Your task to perform on an android device: Go to Maps Image 0: 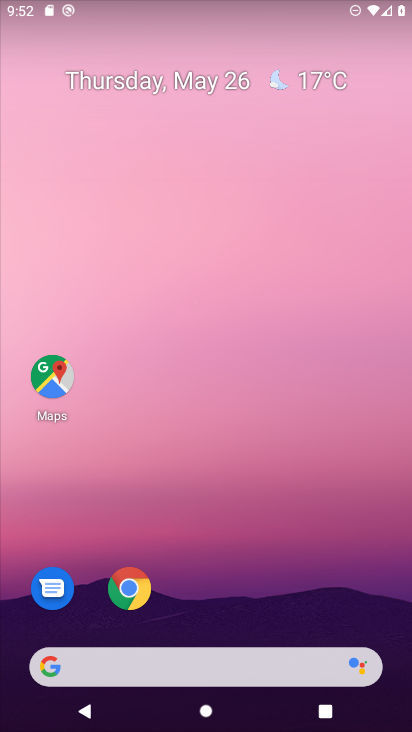
Step 0: click (49, 375)
Your task to perform on an android device: Go to Maps Image 1: 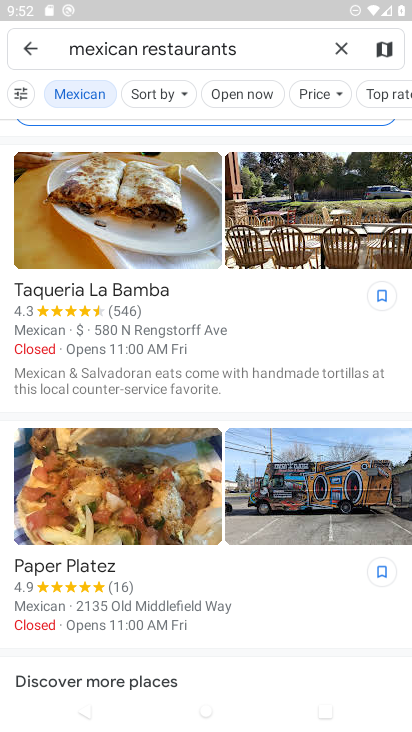
Step 1: click (338, 44)
Your task to perform on an android device: Go to Maps Image 2: 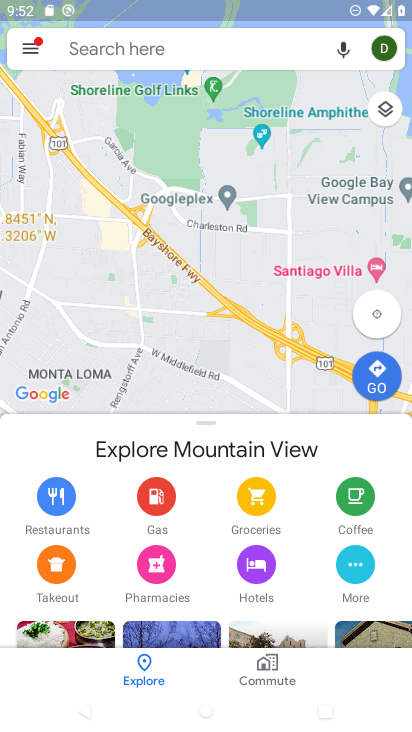
Step 2: click (30, 47)
Your task to perform on an android device: Go to Maps Image 3: 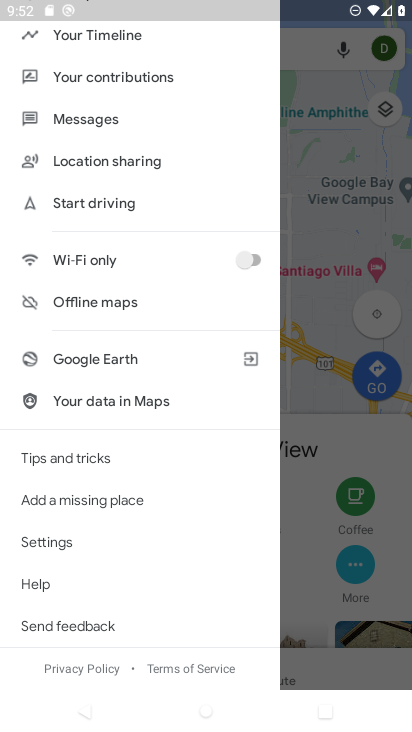
Step 3: task complete